Your task to perform on an android device: Show me the alarms in the clock app Image 0: 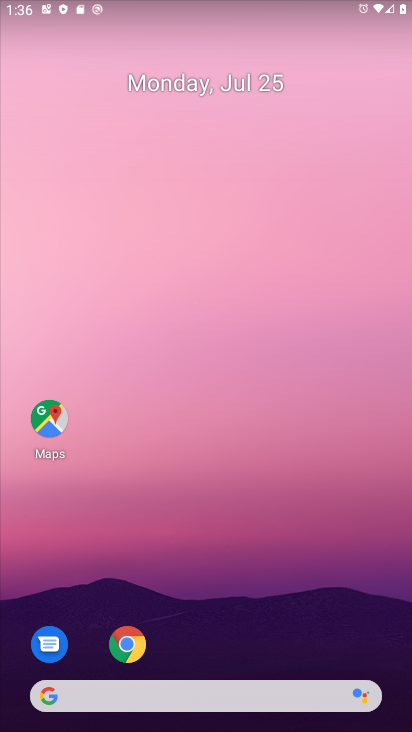
Step 0: drag from (341, 633) to (162, 12)
Your task to perform on an android device: Show me the alarms in the clock app Image 1: 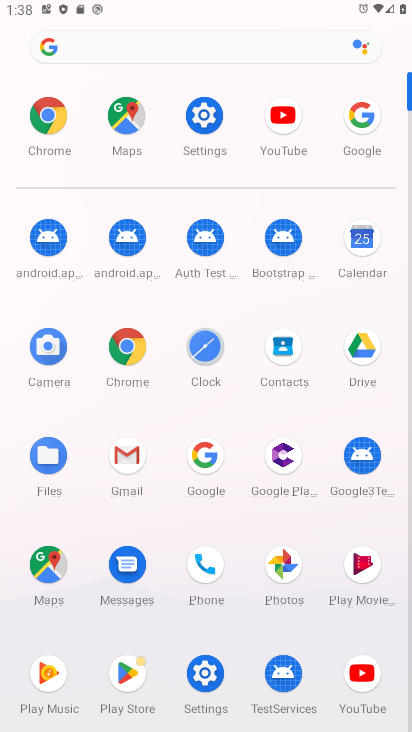
Step 1: click (207, 344)
Your task to perform on an android device: Show me the alarms in the clock app Image 2: 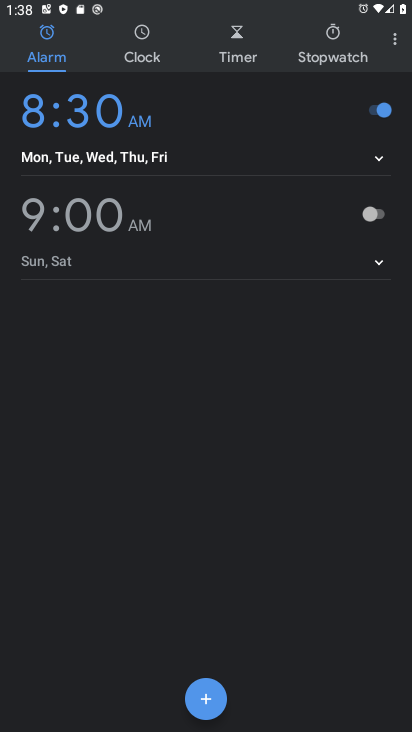
Step 2: task complete